Your task to perform on an android device: When is my next meeting? Image 0: 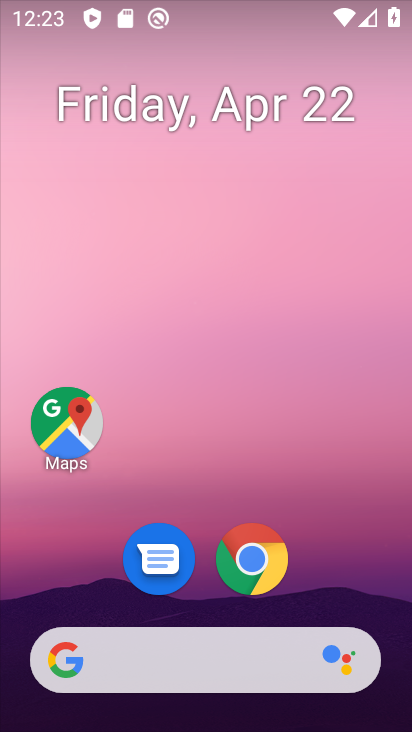
Step 0: drag from (359, 271) to (347, 153)
Your task to perform on an android device: When is my next meeting? Image 1: 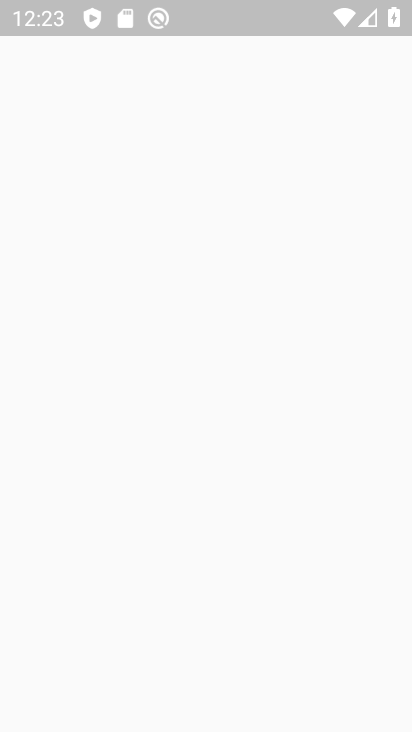
Step 1: press home button
Your task to perform on an android device: When is my next meeting? Image 2: 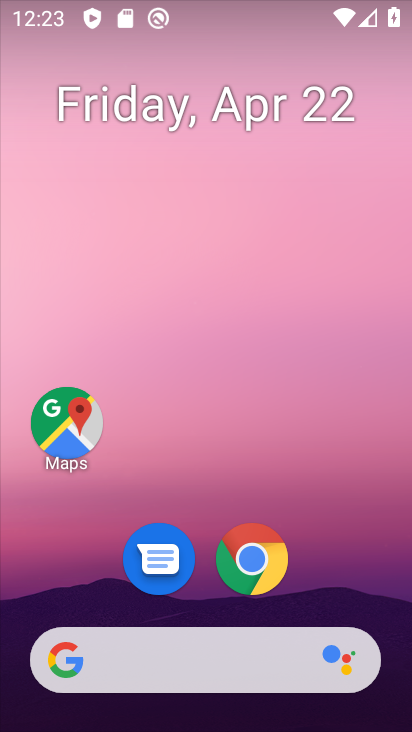
Step 2: drag from (342, 570) to (357, 127)
Your task to perform on an android device: When is my next meeting? Image 3: 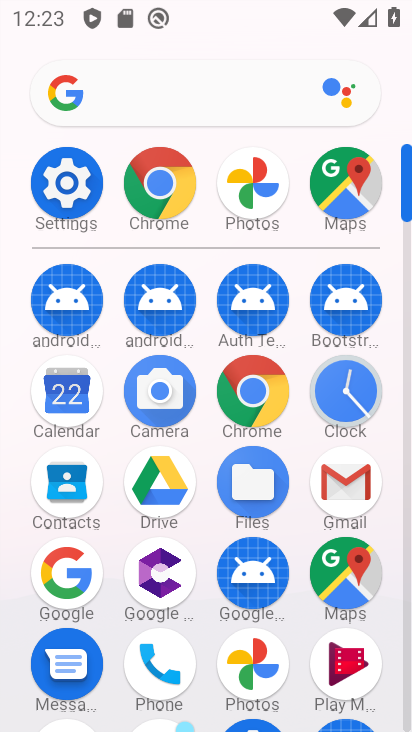
Step 3: click (70, 401)
Your task to perform on an android device: When is my next meeting? Image 4: 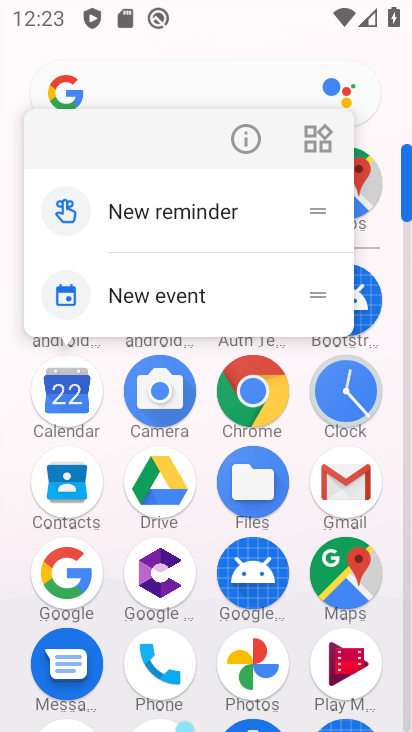
Step 4: click (67, 395)
Your task to perform on an android device: When is my next meeting? Image 5: 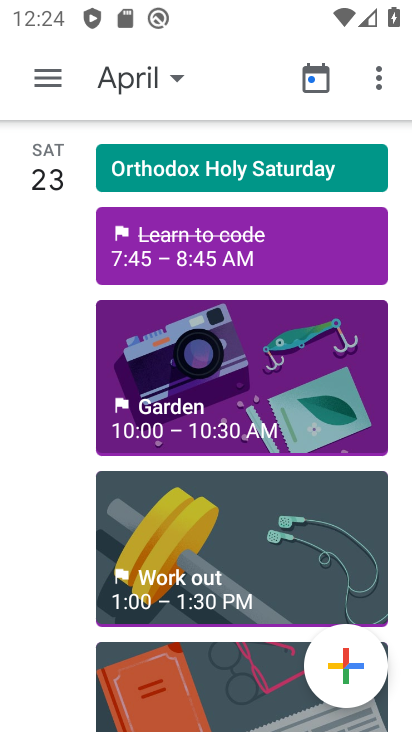
Step 5: click (264, 555)
Your task to perform on an android device: When is my next meeting? Image 6: 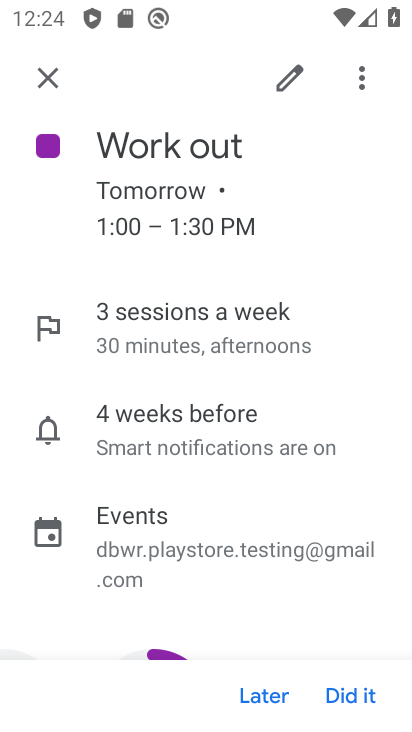
Step 6: task complete